Your task to perform on an android device: toggle improve location accuracy Image 0: 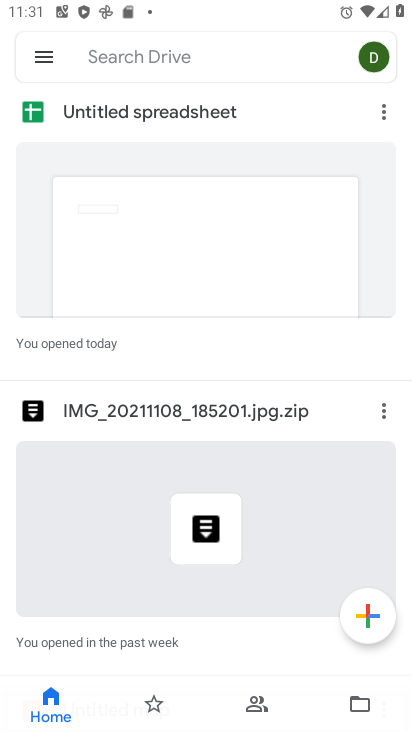
Step 0: press home button
Your task to perform on an android device: toggle improve location accuracy Image 1: 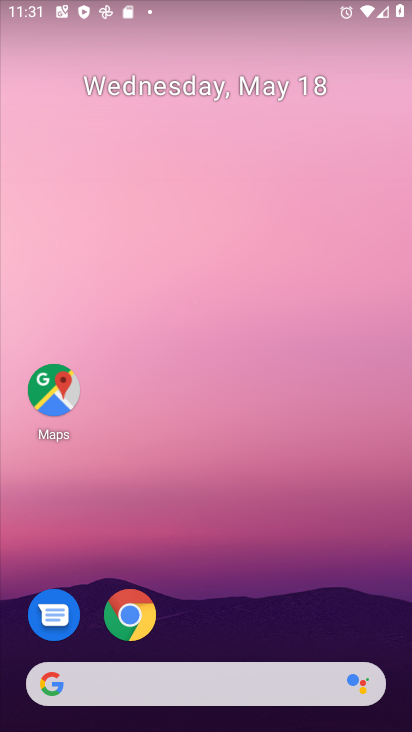
Step 1: drag from (133, 646) to (133, 287)
Your task to perform on an android device: toggle improve location accuracy Image 2: 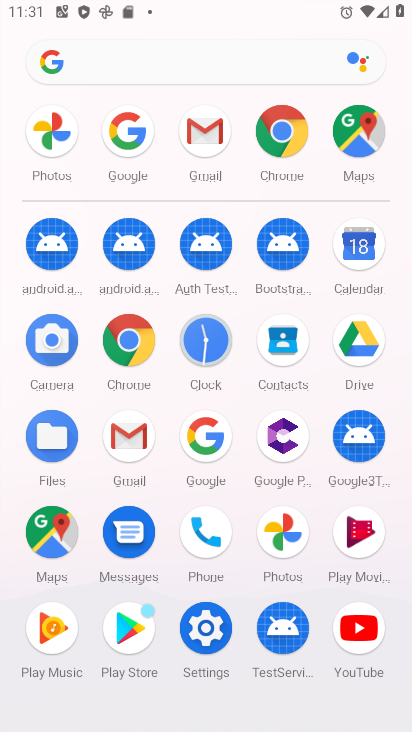
Step 2: click (202, 632)
Your task to perform on an android device: toggle improve location accuracy Image 3: 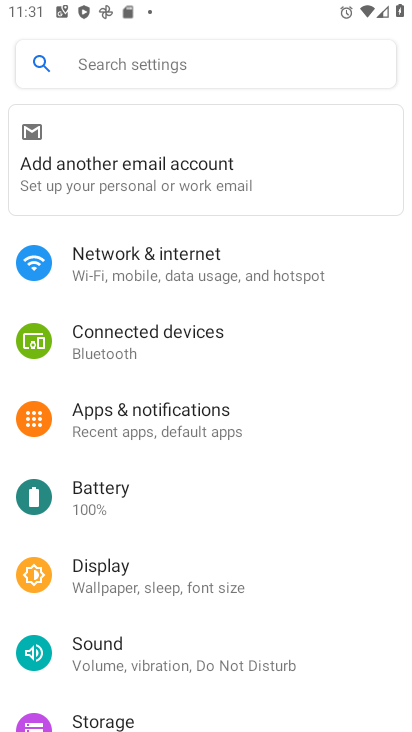
Step 3: drag from (110, 697) to (124, 331)
Your task to perform on an android device: toggle improve location accuracy Image 4: 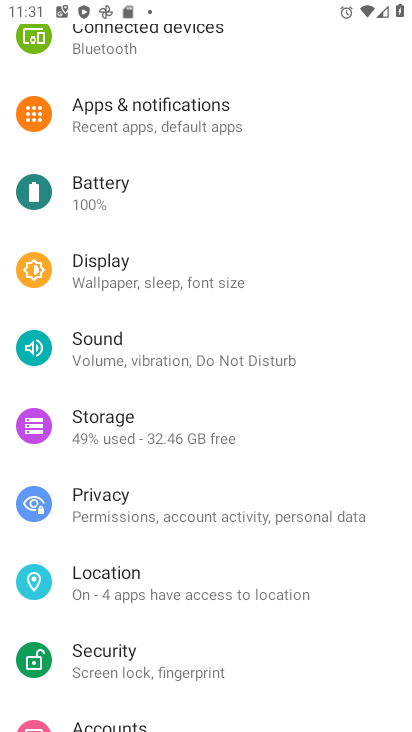
Step 4: click (109, 581)
Your task to perform on an android device: toggle improve location accuracy Image 5: 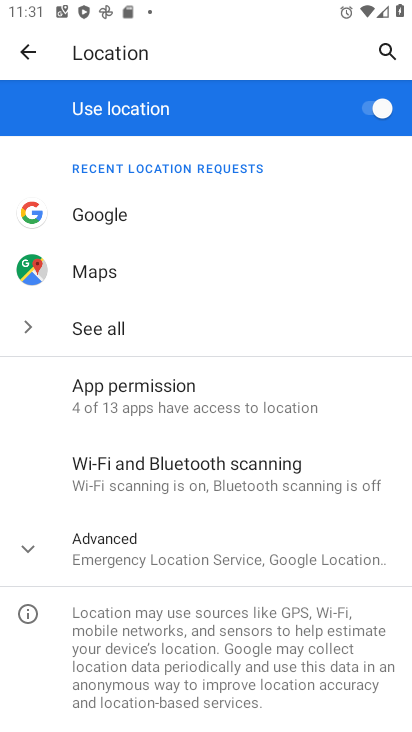
Step 5: click (109, 550)
Your task to perform on an android device: toggle improve location accuracy Image 6: 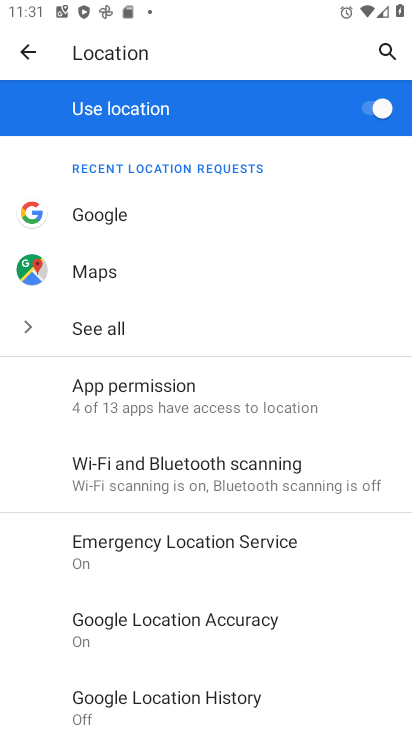
Step 6: drag from (149, 647) to (149, 376)
Your task to perform on an android device: toggle improve location accuracy Image 7: 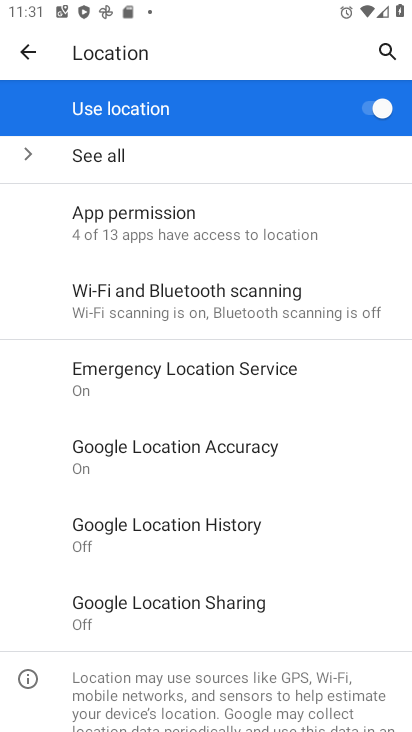
Step 7: click (121, 457)
Your task to perform on an android device: toggle improve location accuracy Image 8: 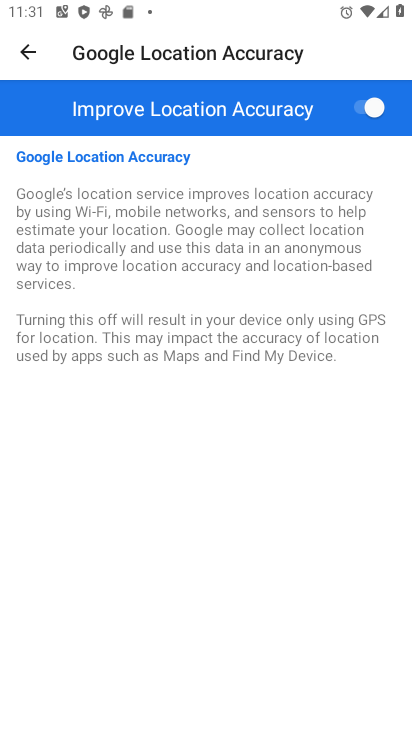
Step 8: click (358, 110)
Your task to perform on an android device: toggle improve location accuracy Image 9: 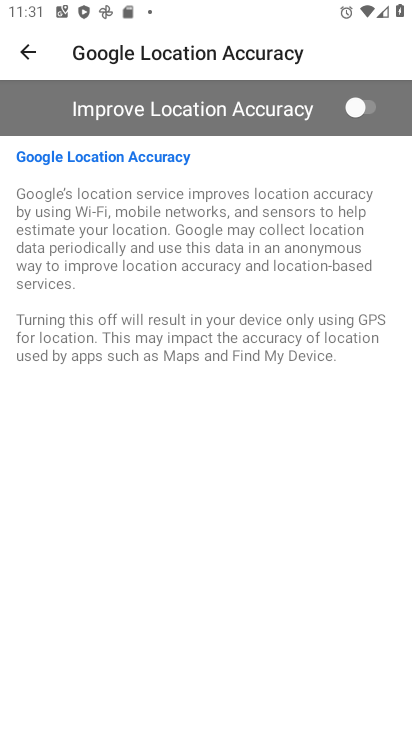
Step 9: task complete